Your task to perform on an android device: clear all cookies in the chrome app Image 0: 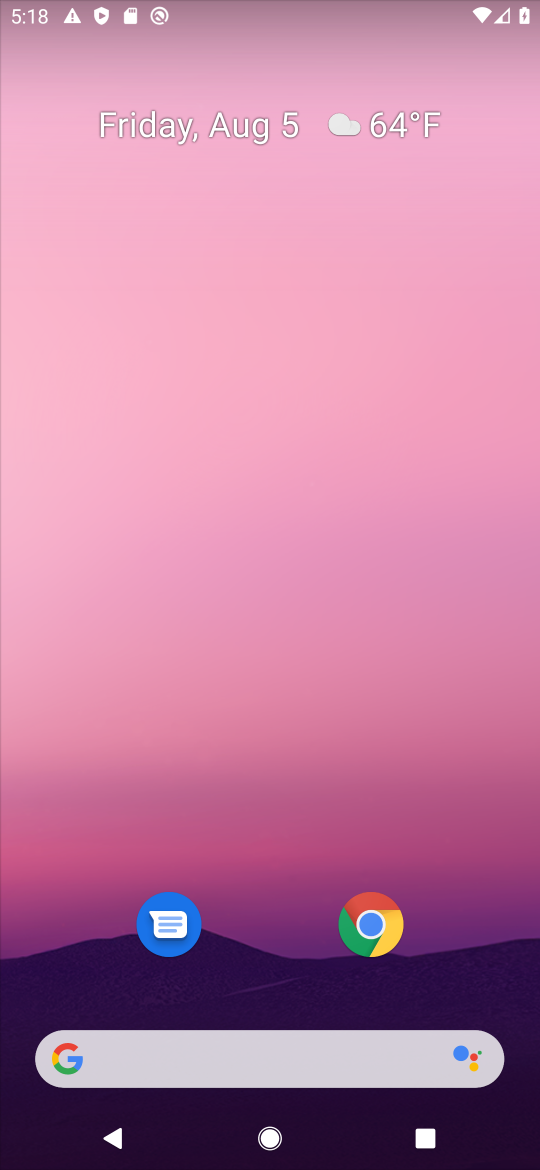
Step 0: click (372, 928)
Your task to perform on an android device: clear all cookies in the chrome app Image 1: 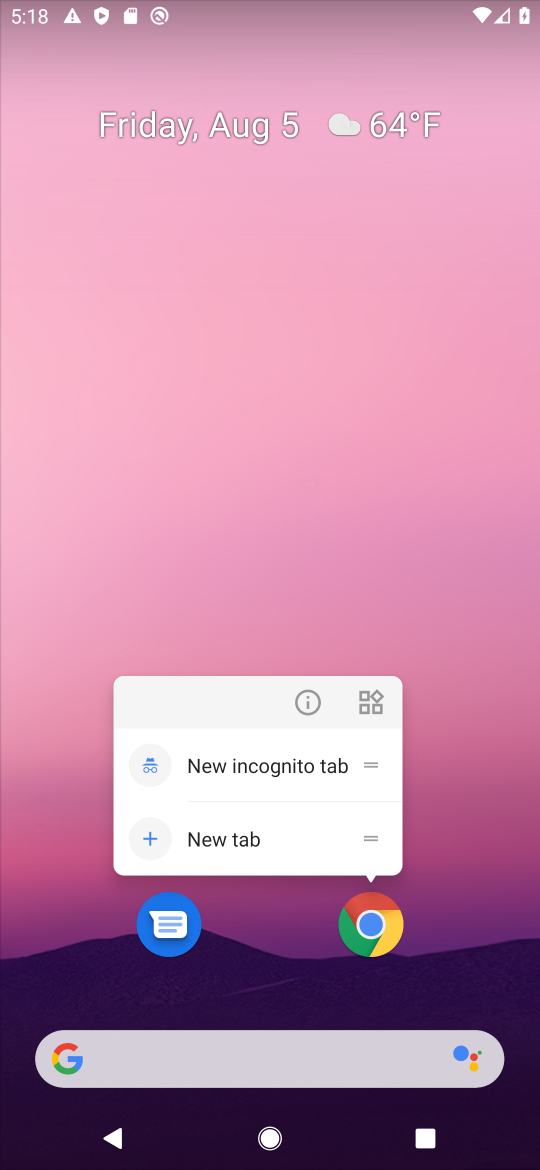
Step 1: click (372, 928)
Your task to perform on an android device: clear all cookies in the chrome app Image 2: 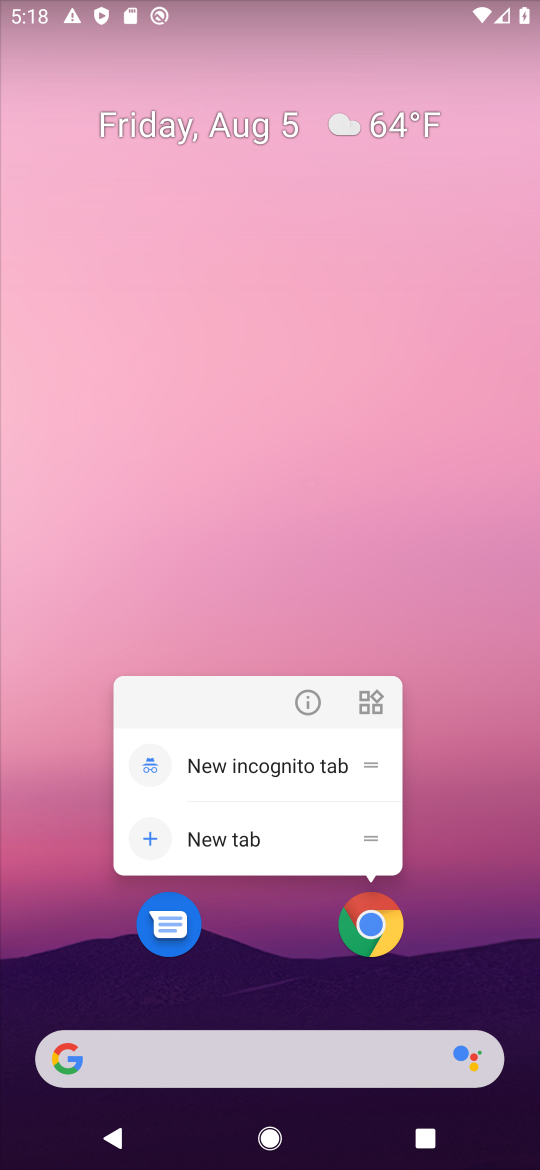
Step 2: click (372, 928)
Your task to perform on an android device: clear all cookies in the chrome app Image 3: 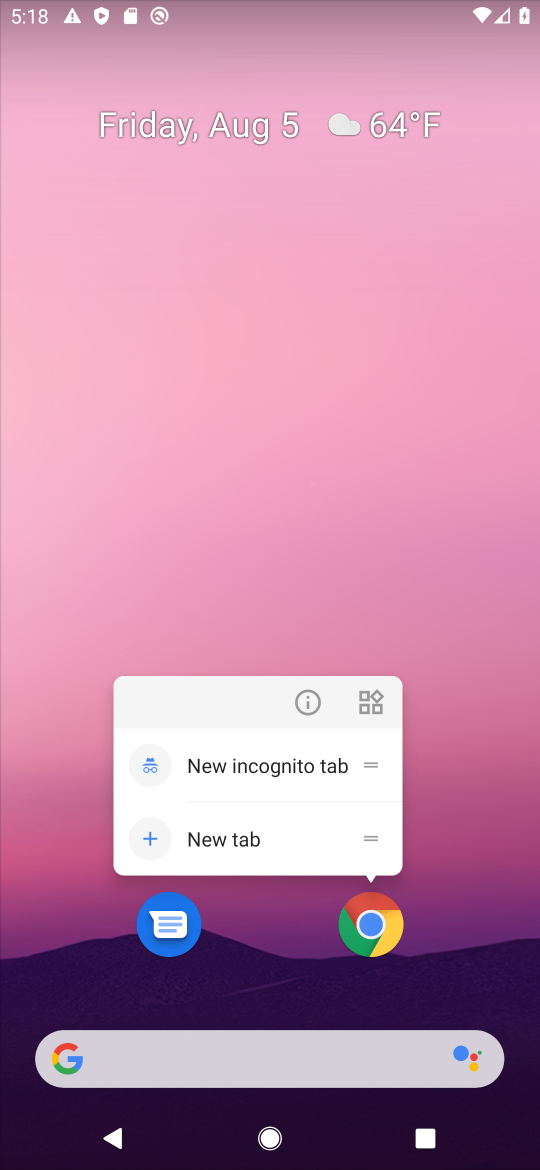
Step 3: click (372, 928)
Your task to perform on an android device: clear all cookies in the chrome app Image 4: 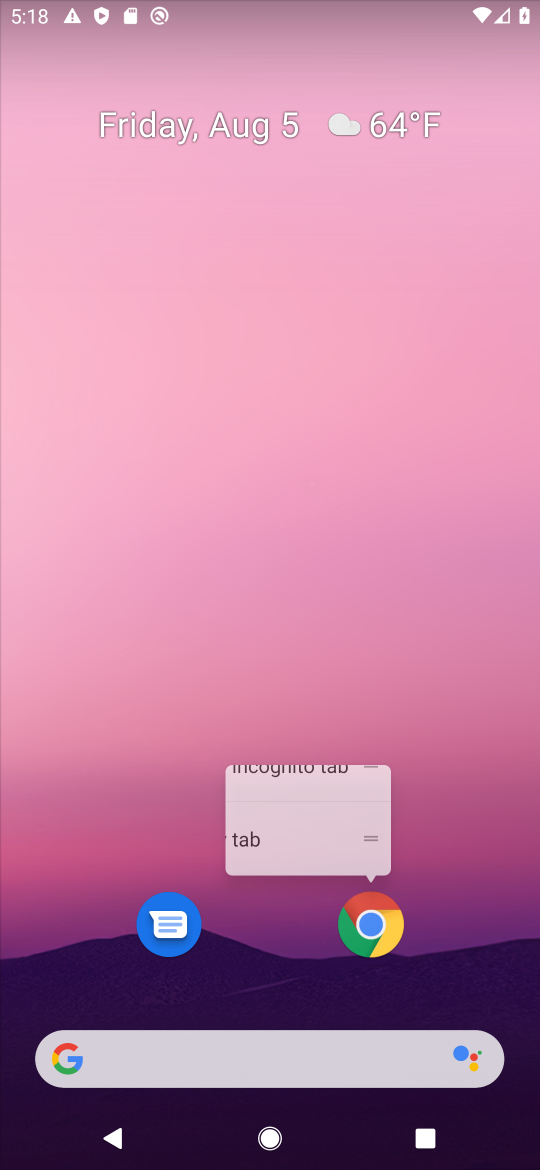
Step 4: click (372, 928)
Your task to perform on an android device: clear all cookies in the chrome app Image 5: 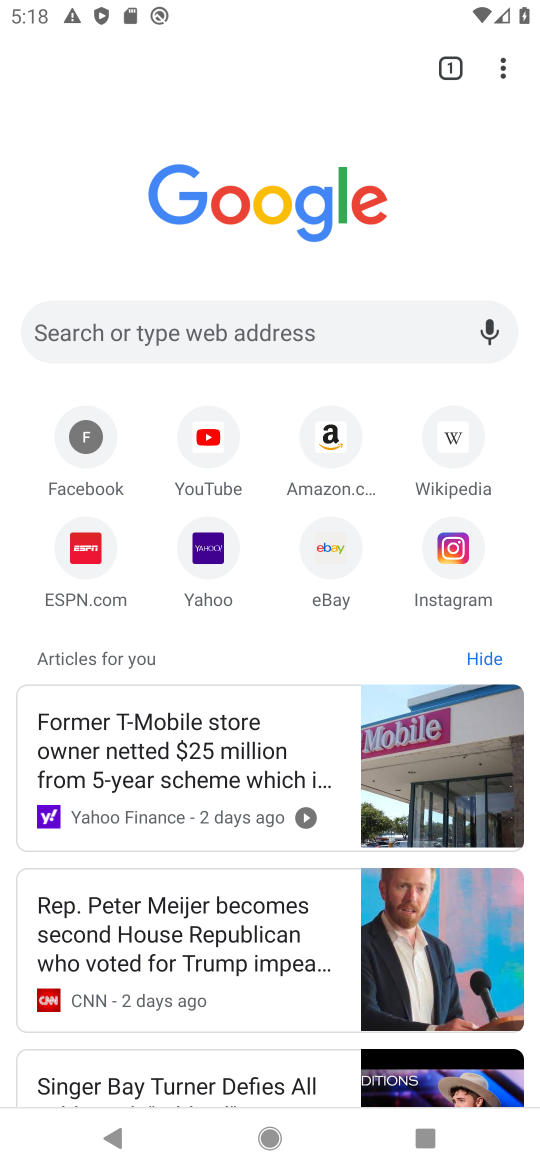
Step 5: click (498, 73)
Your task to perform on an android device: clear all cookies in the chrome app Image 6: 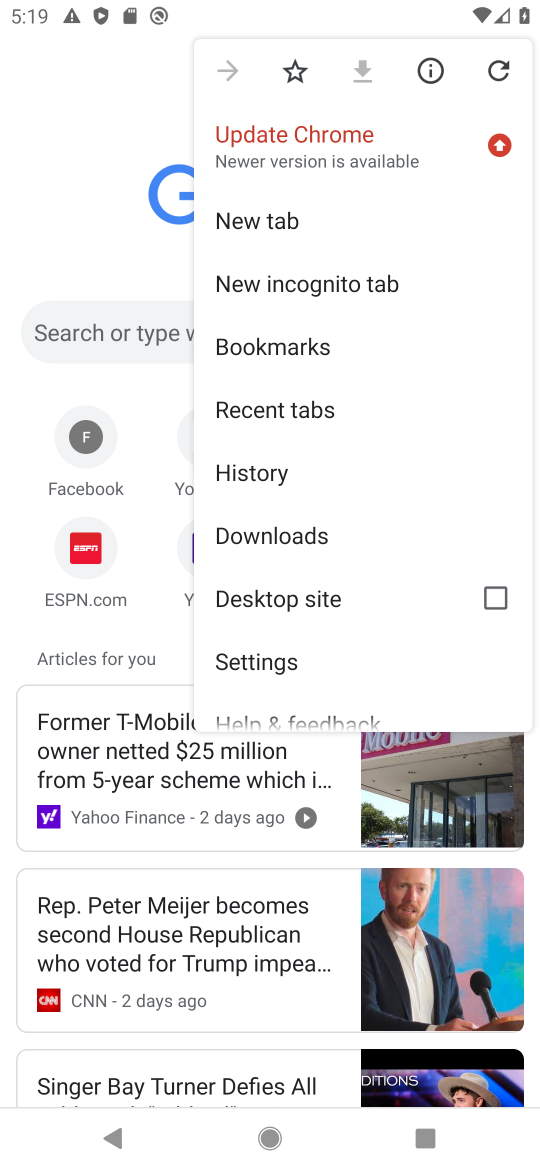
Step 6: click (287, 486)
Your task to perform on an android device: clear all cookies in the chrome app Image 7: 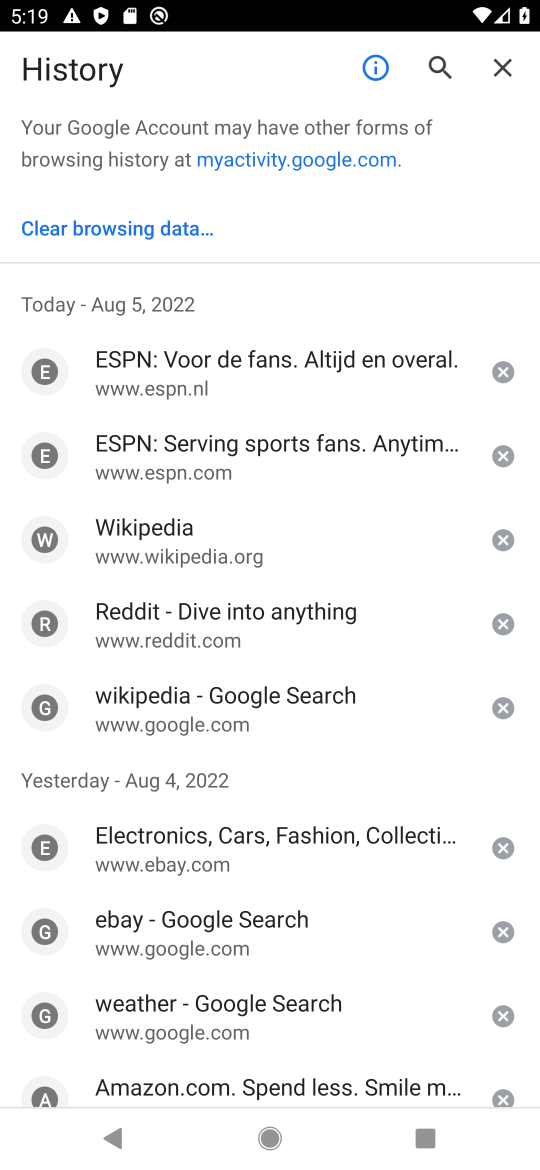
Step 7: click (142, 228)
Your task to perform on an android device: clear all cookies in the chrome app Image 8: 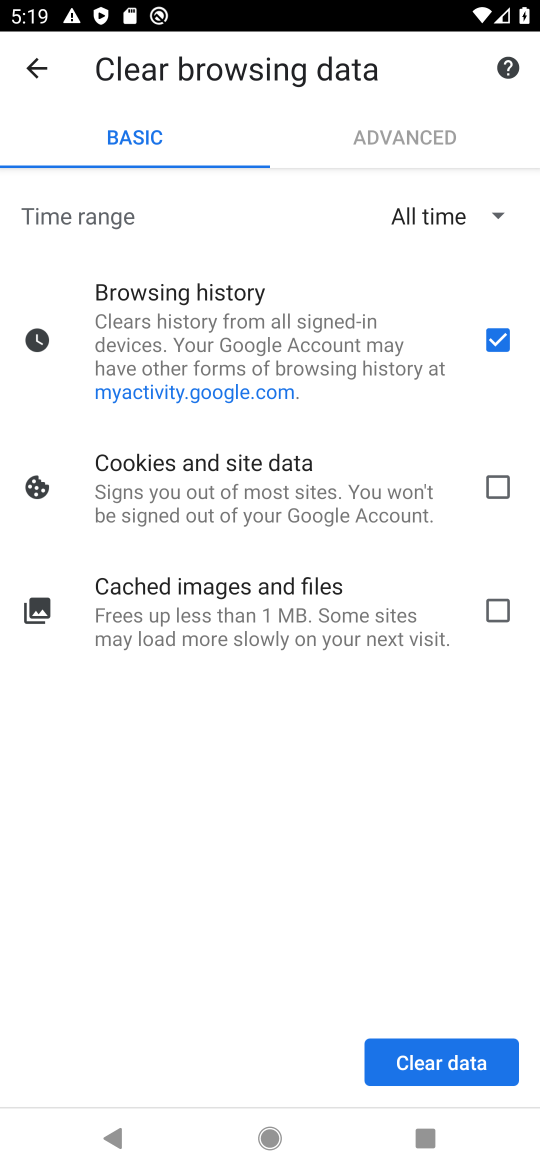
Step 8: click (428, 1064)
Your task to perform on an android device: clear all cookies in the chrome app Image 9: 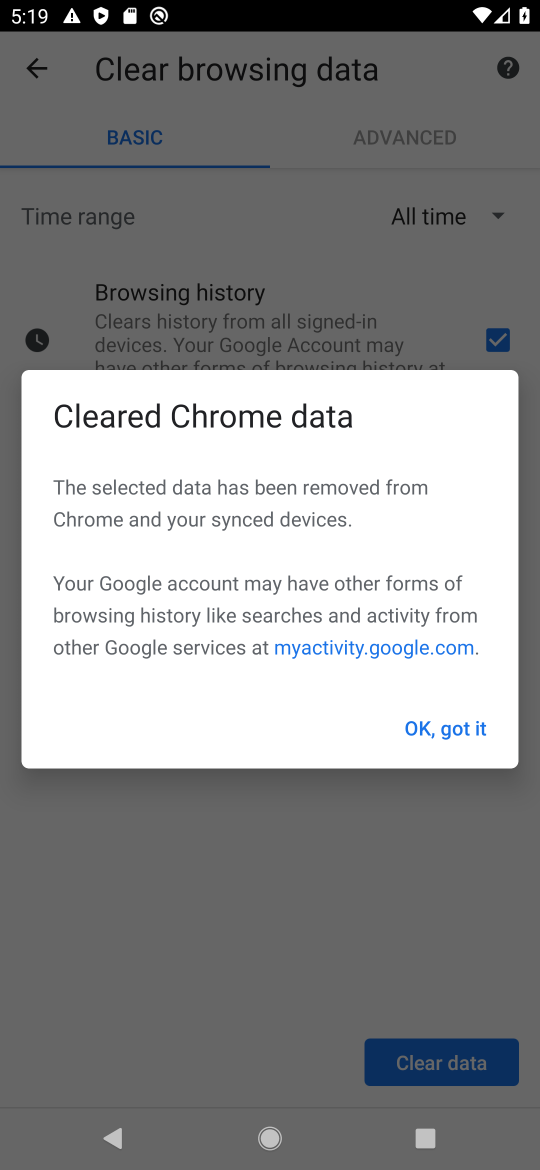
Step 9: click (441, 725)
Your task to perform on an android device: clear all cookies in the chrome app Image 10: 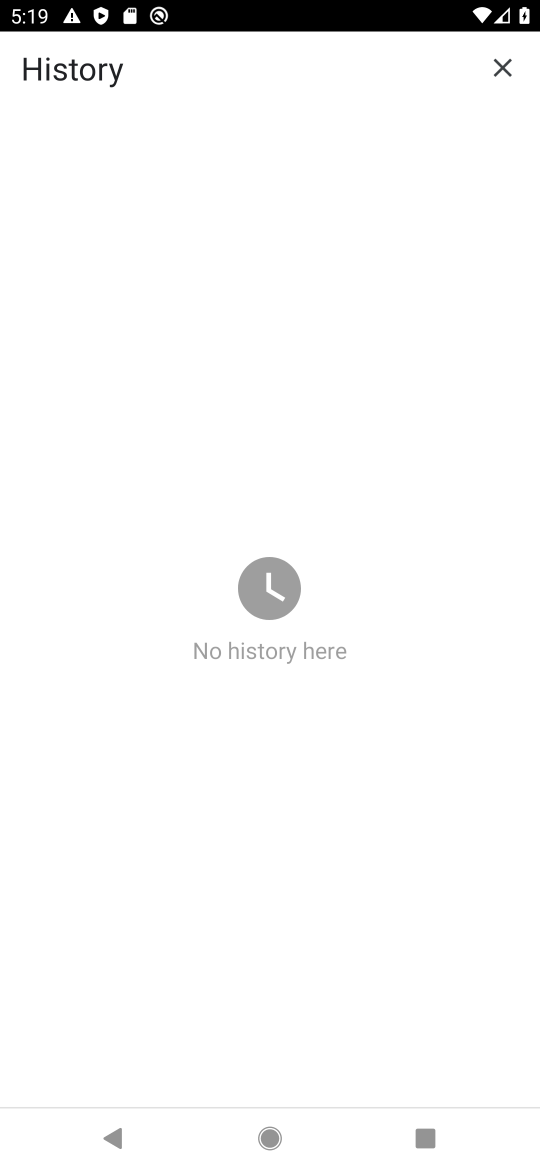
Step 10: task complete